Your task to perform on an android device: Go to Reddit.com Image 0: 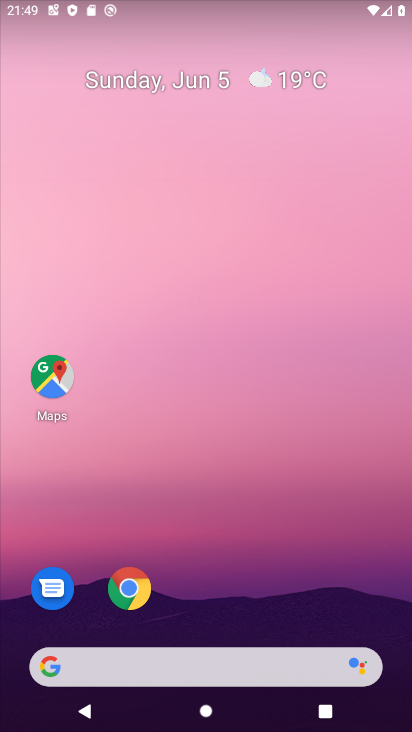
Step 0: drag from (343, 605) to (365, 214)
Your task to perform on an android device: Go to Reddit.com Image 1: 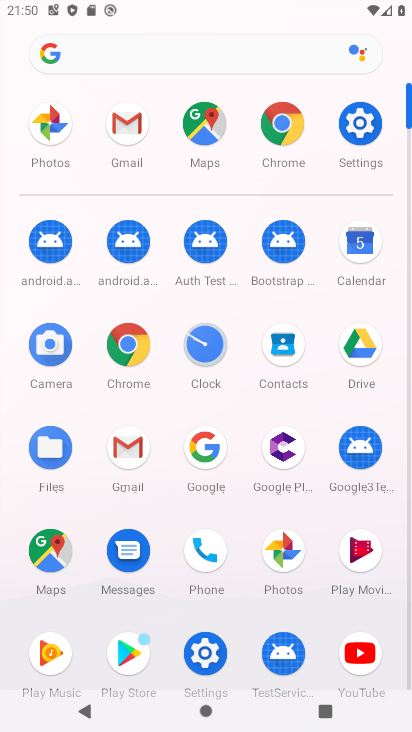
Step 1: click (124, 339)
Your task to perform on an android device: Go to Reddit.com Image 2: 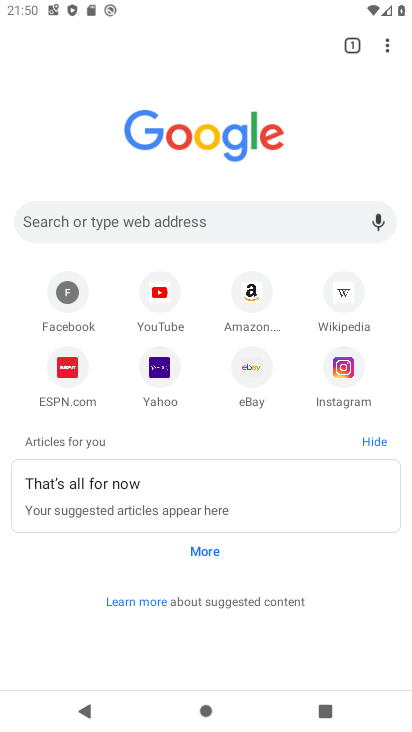
Step 2: click (242, 219)
Your task to perform on an android device: Go to Reddit.com Image 3: 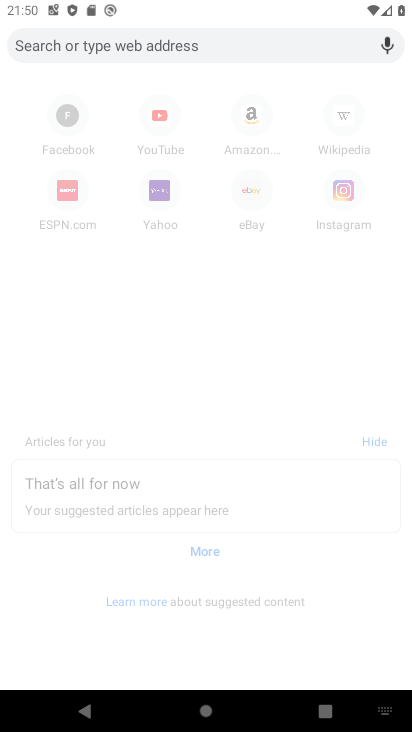
Step 3: type "reddit.com"
Your task to perform on an android device: Go to Reddit.com Image 4: 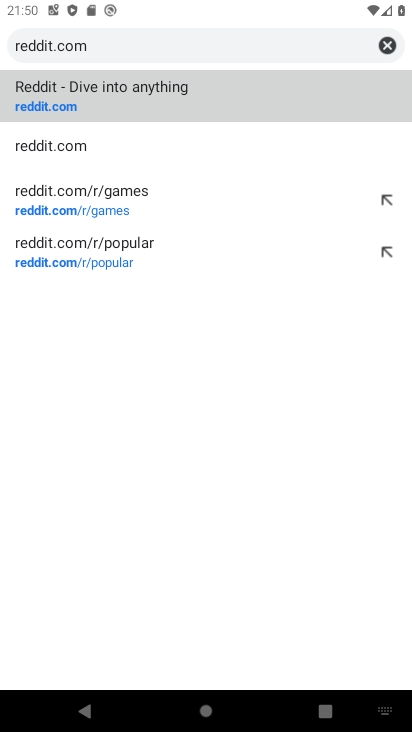
Step 4: click (125, 145)
Your task to perform on an android device: Go to Reddit.com Image 5: 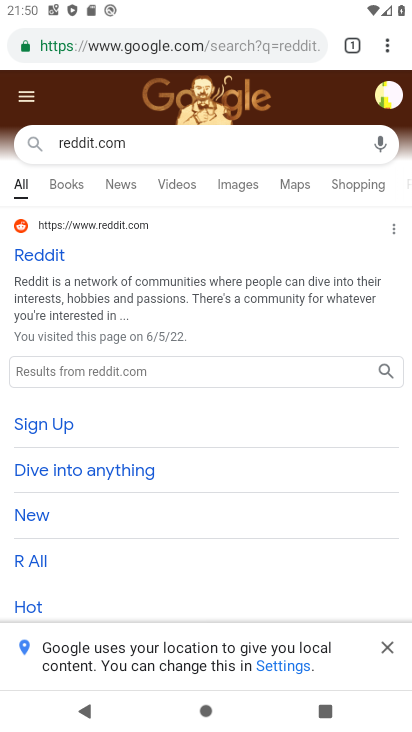
Step 5: task complete